Your task to perform on an android device: open app "Facebook Messenger" Image 0: 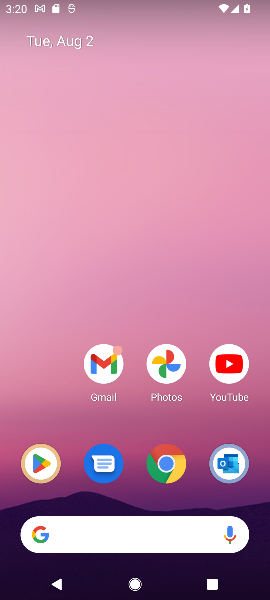
Step 0: click (49, 451)
Your task to perform on an android device: open app "Facebook Messenger" Image 1: 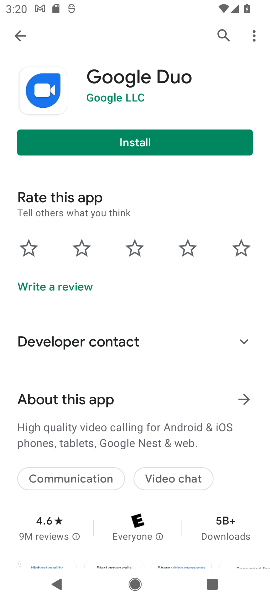
Step 1: click (223, 30)
Your task to perform on an android device: open app "Facebook Messenger" Image 2: 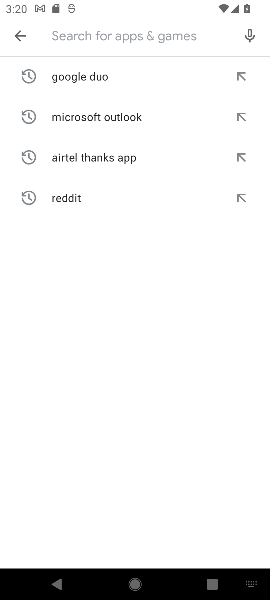
Step 2: type "Facebook Messenger"
Your task to perform on an android device: open app "Facebook Messenger" Image 3: 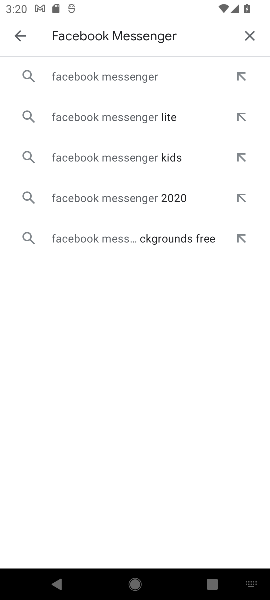
Step 3: click (125, 75)
Your task to perform on an android device: open app "Facebook Messenger" Image 4: 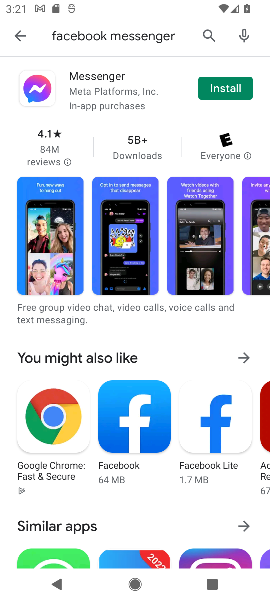
Step 4: task complete